Your task to perform on an android device: When is my next meeting? Image 0: 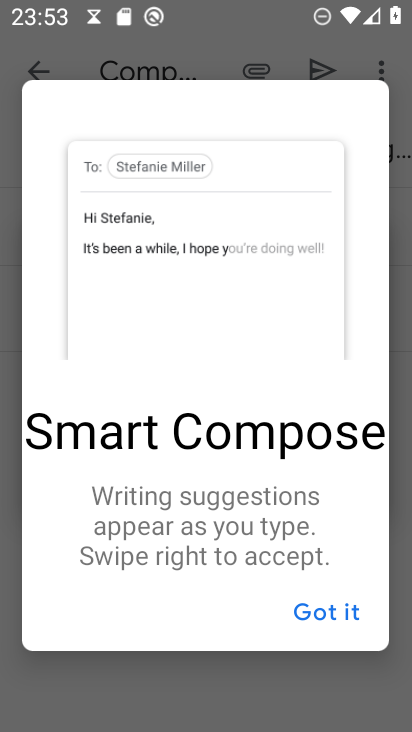
Step 0: press home button
Your task to perform on an android device: When is my next meeting? Image 1: 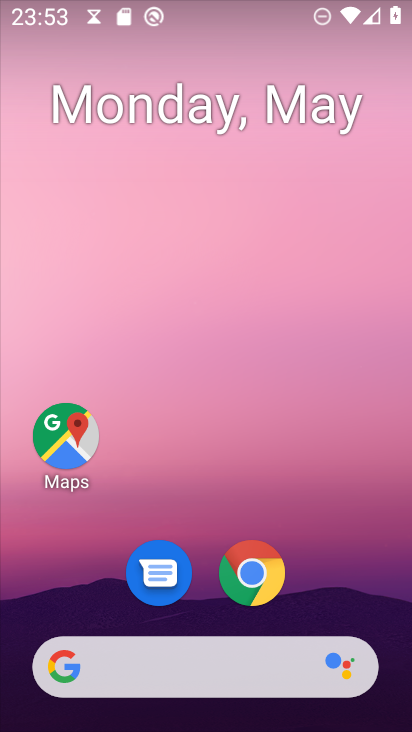
Step 1: drag from (343, 555) to (232, 24)
Your task to perform on an android device: When is my next meeting? Image 2: 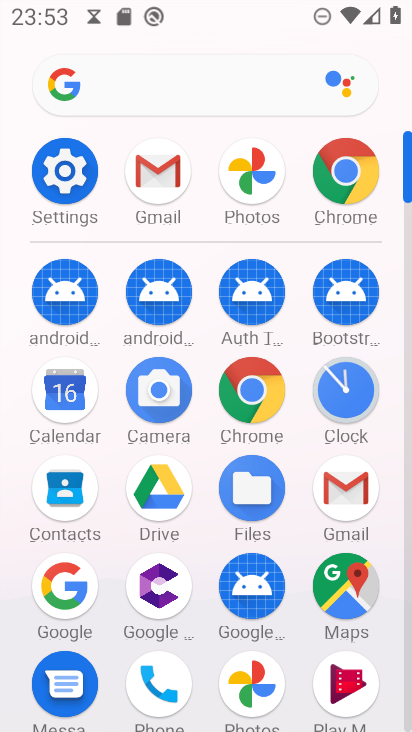
Step 2: click (63, 385)
Your task to perform on an android device: When is my next meeting? Image 3: 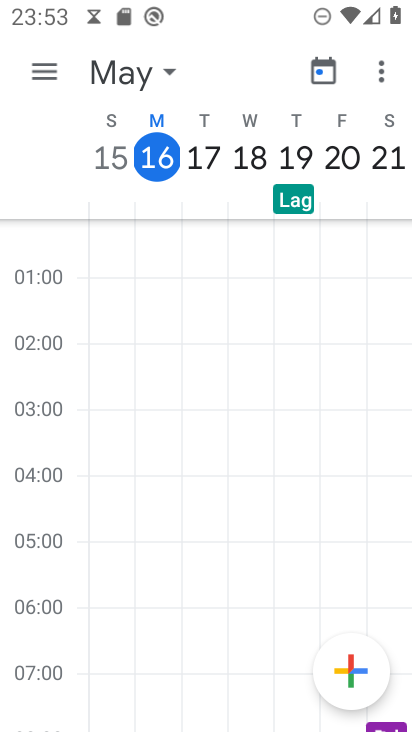
Step 3: task complete